Your task to perform on an android device: toggle sleep mode Image 0: 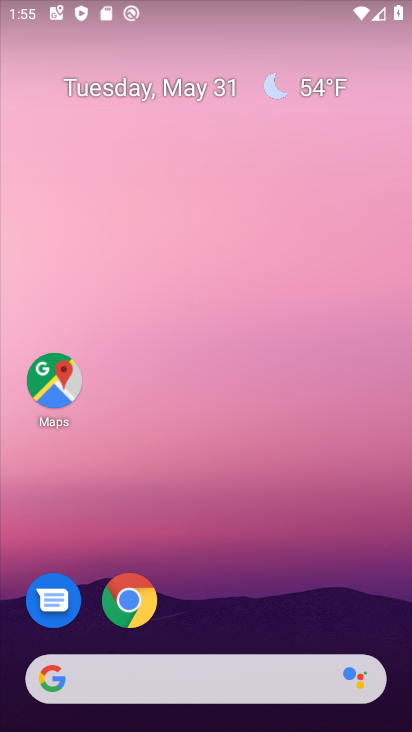
Step 0: drag from (290, 487) to (196, 0)
Your task to perform on an android device: toggle sleep mode Image 1: 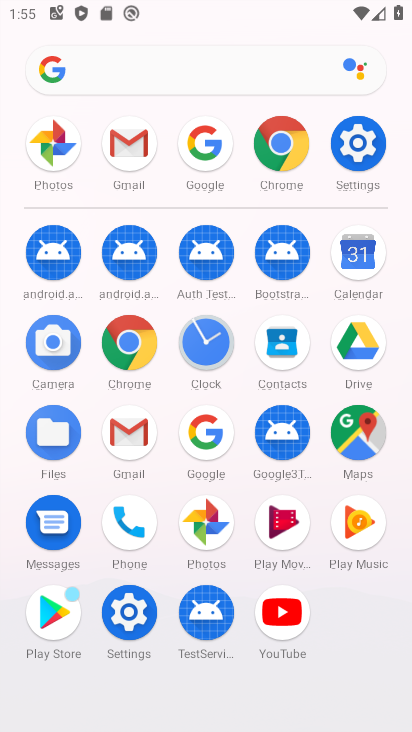
Step 1: click (353, 130)
Your task to perform on an android device: toggle sleep mode Image 2: 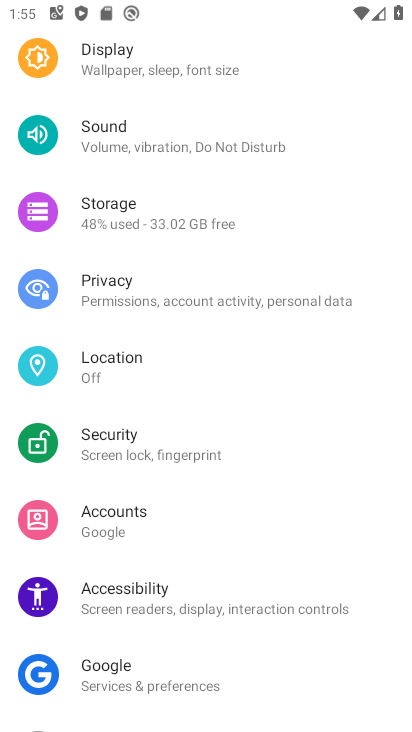
Step 2: click (155, 65)
Your task to perform on an android device: toggle sleep mode Image 3: 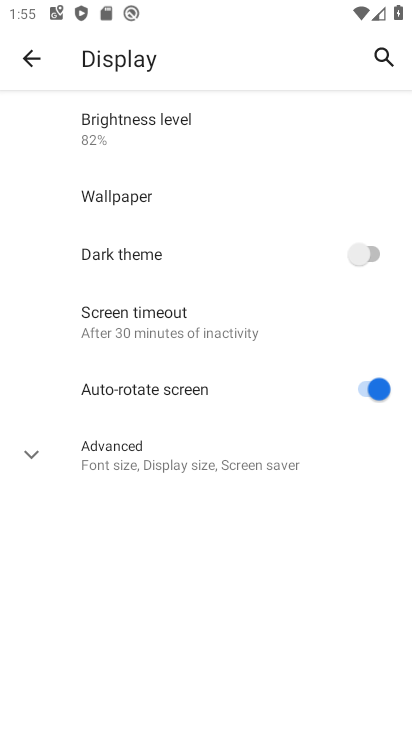
Step 3: task complete